Your task to perform on an android device: Open maps Image 0: 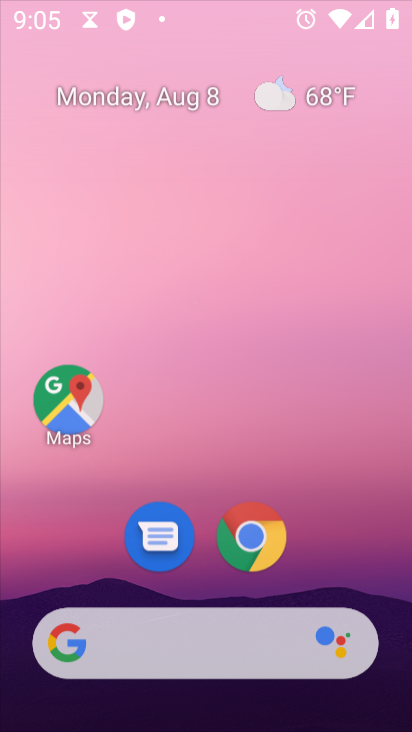
Step 0: press home button
Your task to perform on an android device: Open maps Image 1: 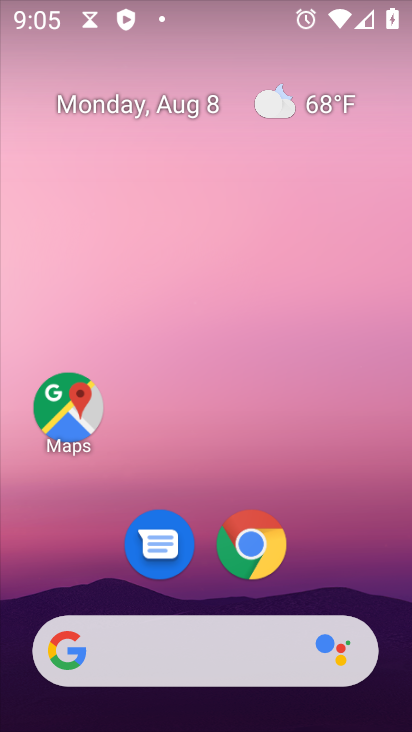
Step 1: drag from (319, 569) to (339, 18)
Your task to perform on an android device: Open maps Image 2: 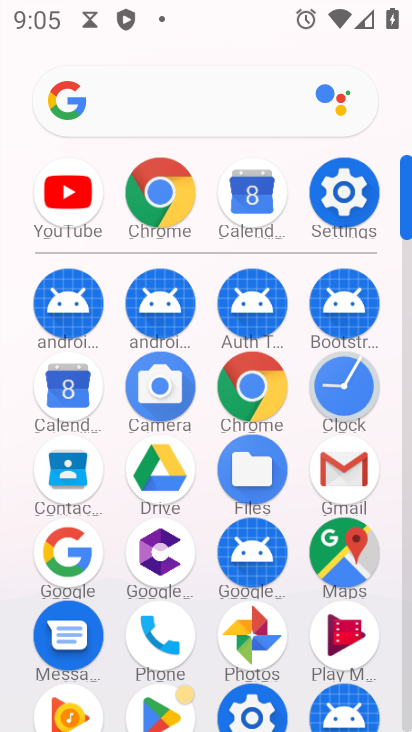
Step 2: click (334, 567)
Your task to perform on an android device: Open maps Image 3: 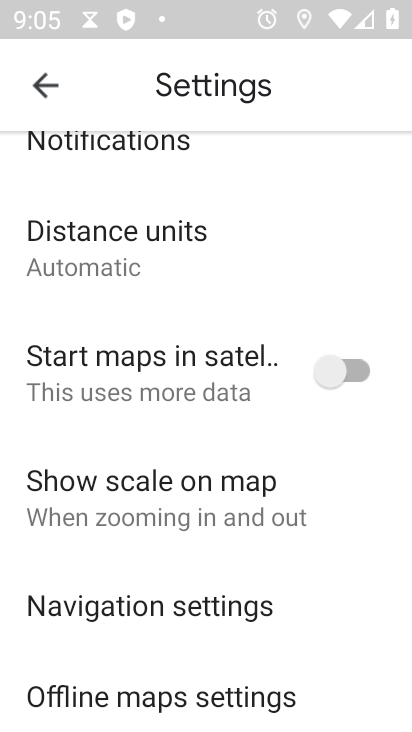
Step 3: click (36, 84)
Your task to perform on an android device: Open maps Image 4: 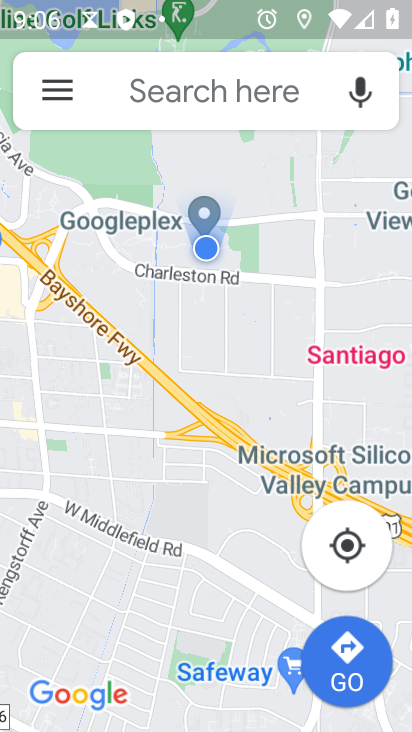
Step 4: task complete